Your task to perform on an android device: delete location history Image 0: 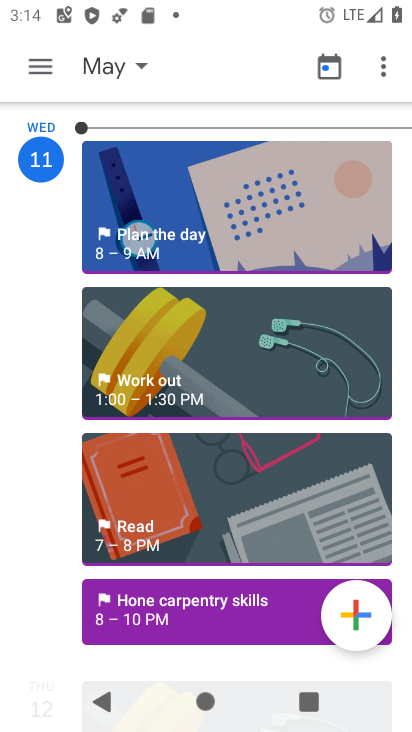
Step 0: press home button
Your task to perform on an android device: delete location history Image 1: 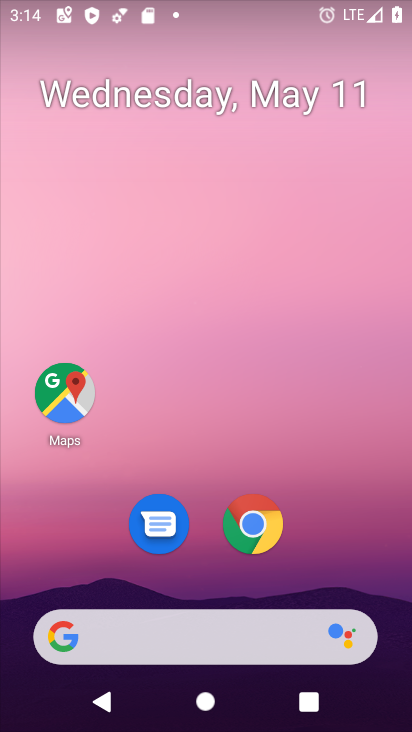
Step 1: click (51, 384)
Your task to perform on an android device: delete location history Image 2: 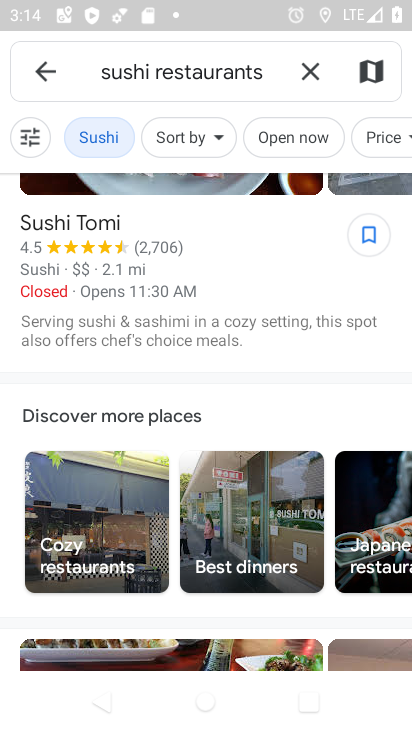
Step 2: click (40, 67)
Your task to perform on an android device: delete location history Image 3: 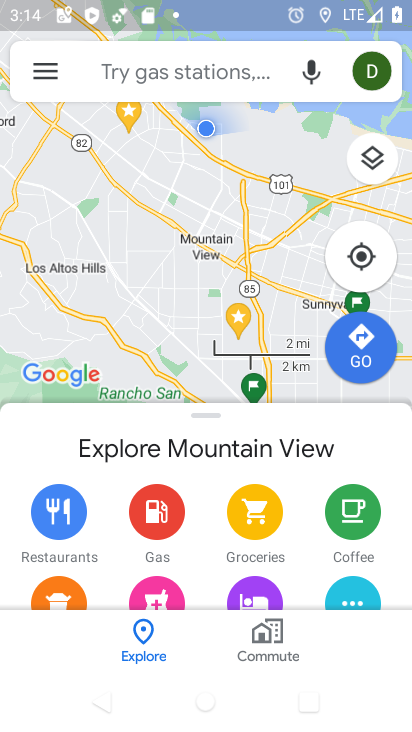
Step 3: click (40, 67)
Your task to perform on an android device: delete location history Image 4: 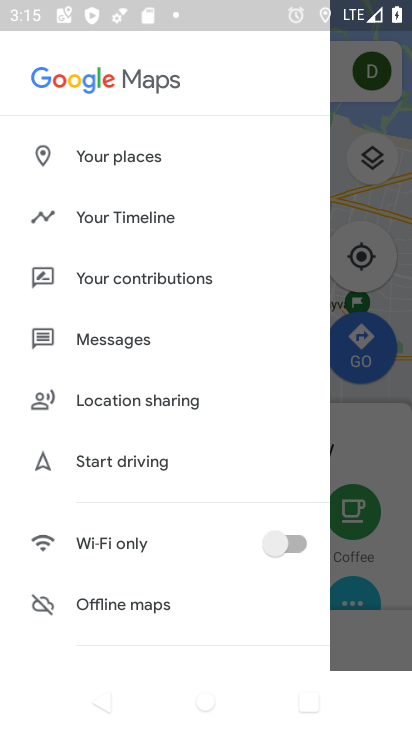
Step 4: click (122, 208)
Your task to perform on an android device: delete location history Image 5: 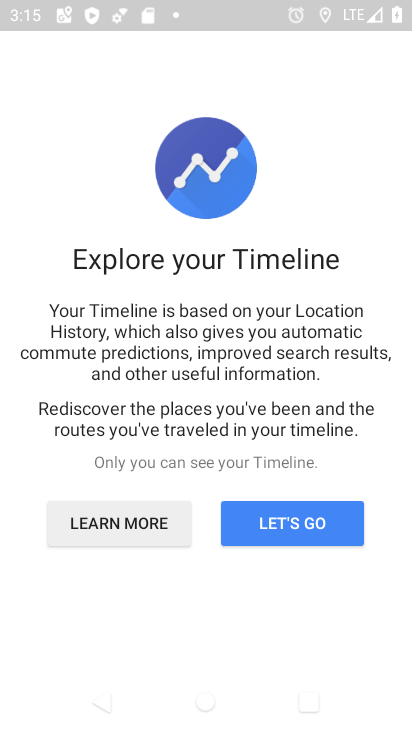
Step 5: click (307, 516)
Your task to perform on an android device: delete location history Image 6: 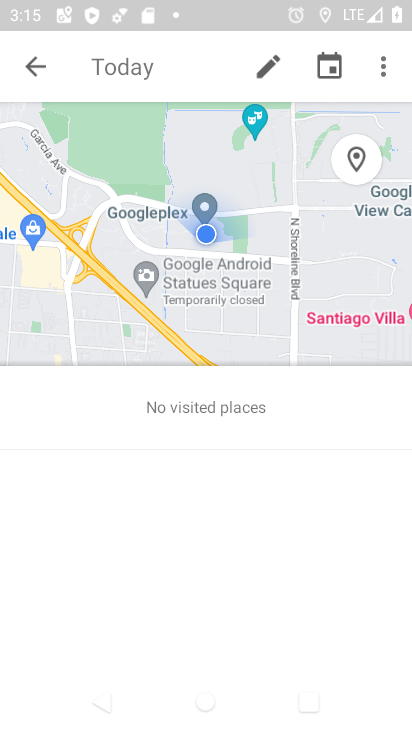
Step 6: click (387, 70)
Your task to perform on an android device: delete location history Image 7: 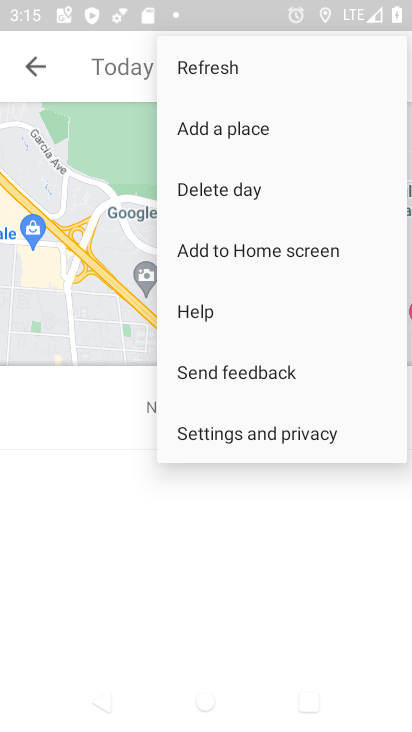
Step 7: click (305, 429)
Your task to perform on an android device: delete location history Image 8: 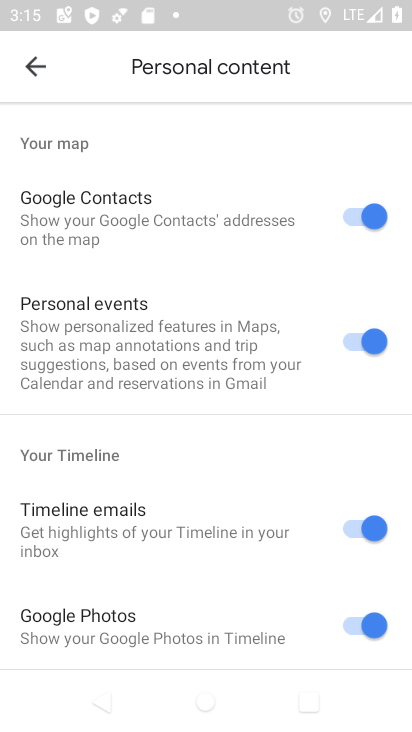
Step 8: drag from (193, 584) to (195, 131)
Your task to perform on an android device: delete location history Image 9: 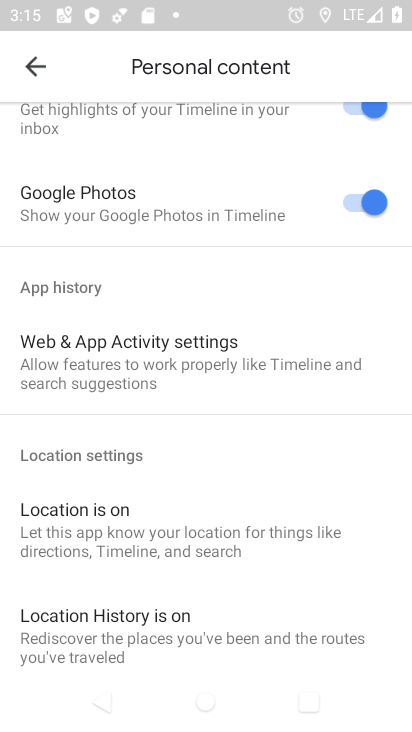
Step 9: drag from (160, 455) to (188, 139)
Your task to perform on an android device: delete location history Image 10: 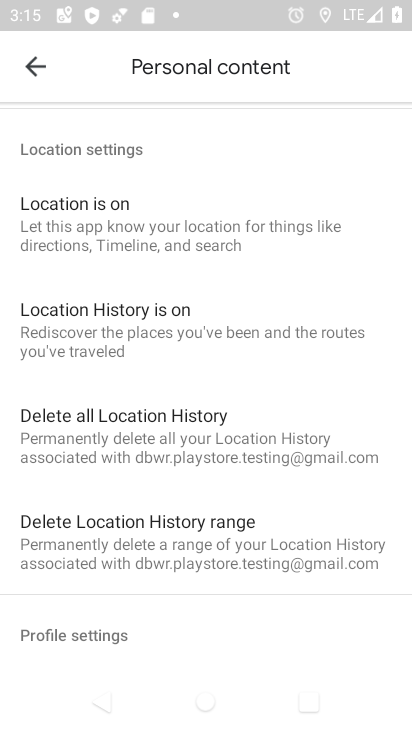
Step 10: click (164, 422)
Your task to perform on an android device: delete location history Image 11: 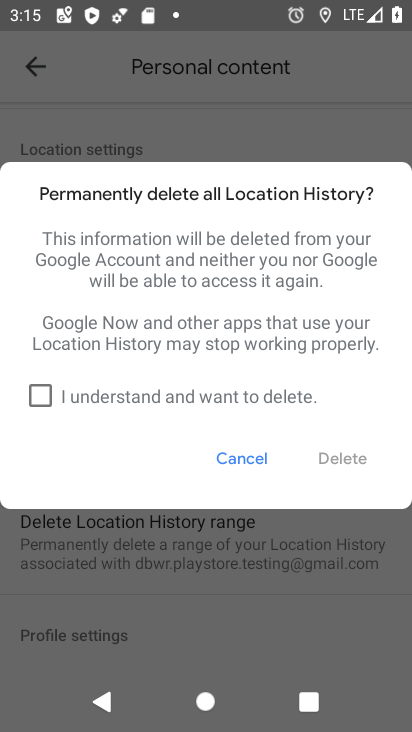
Step 11: click (43, 389)
Your task to perform on an android device: delete location history Image 12: 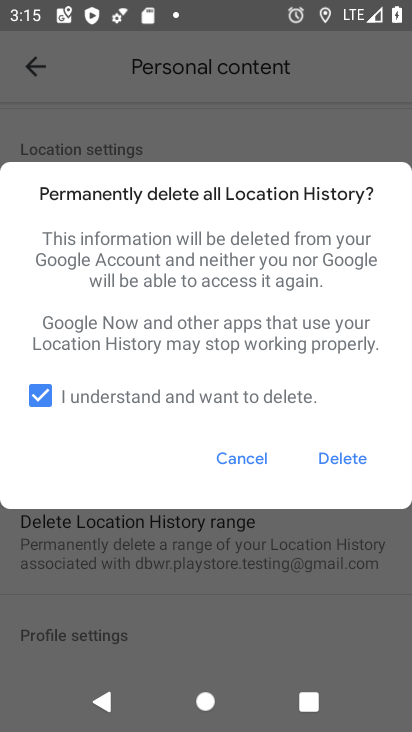
Step 12: click (332, 451)
Your task to perform on an android device: delete location history Image 13: 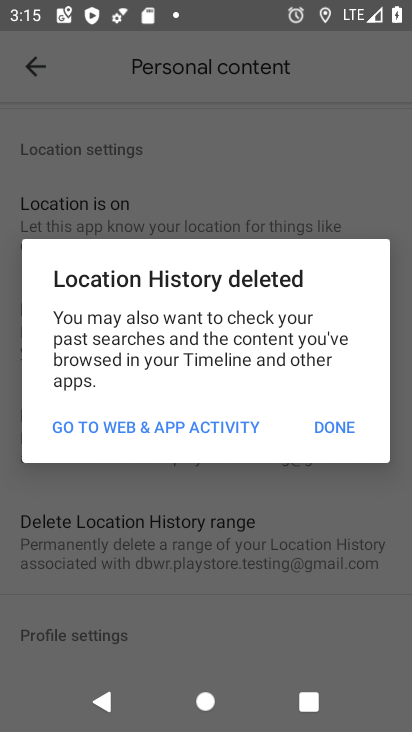
Step 13: click (341, 423)
Your task to perform on an android device: delete location history Image 14: 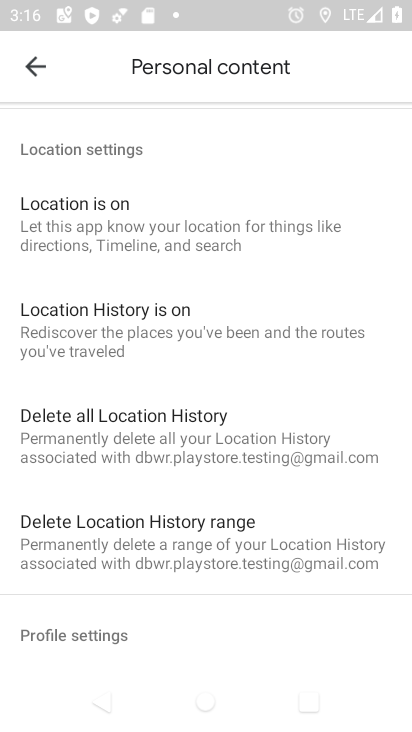
Step 14: task complete